Your task to perform on an android device: star an email in the gmail app Image 0: 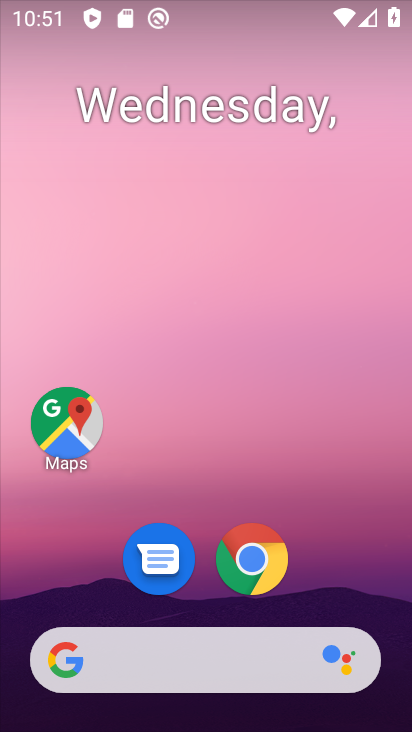
Step 0: drag from (360, 522) to (374, 68)
Your task to perform on an android device: star an email in the gmail app Image 1: 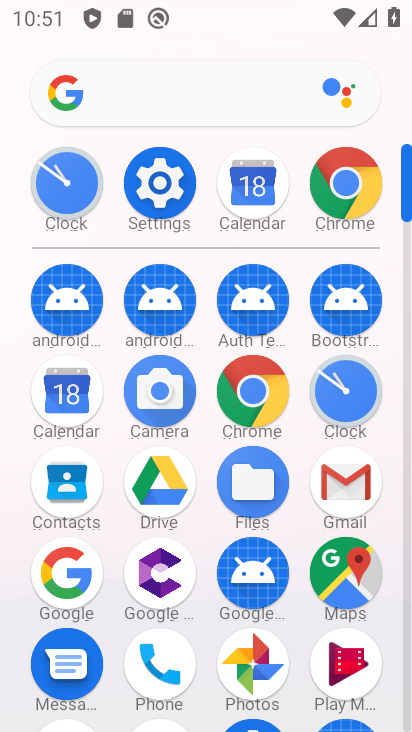
Step 1: click (354, 483)
Your task to perform on an android device: star an email in the gmail app Image 2: 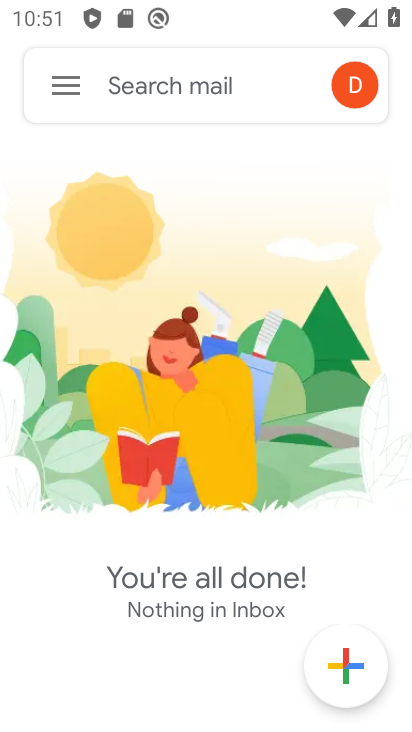
Step 2: click (40, 99)
Your task to perform on an android device: star an email in the gmail app Image 3: 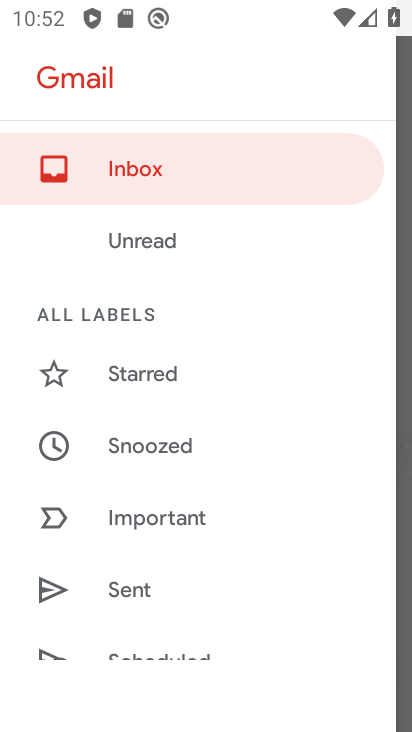
Step 3: click (142, 189)
Your task to perform on an android device: star an email in the gmail app Image 4: 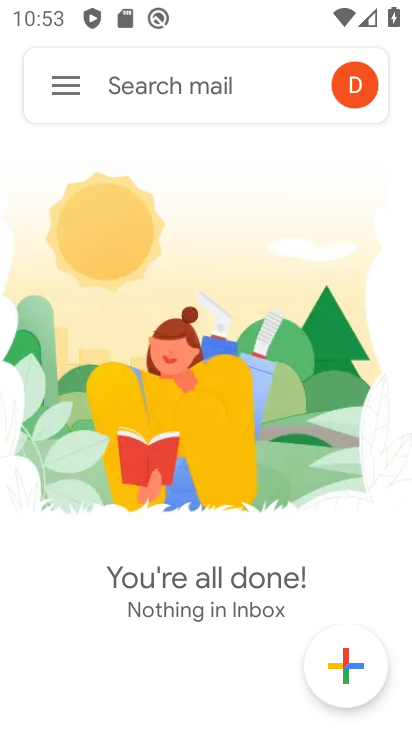
Step 4: task complete